Your task to perform on an android device: Search for Mexican restaurants on Maps Image 0: 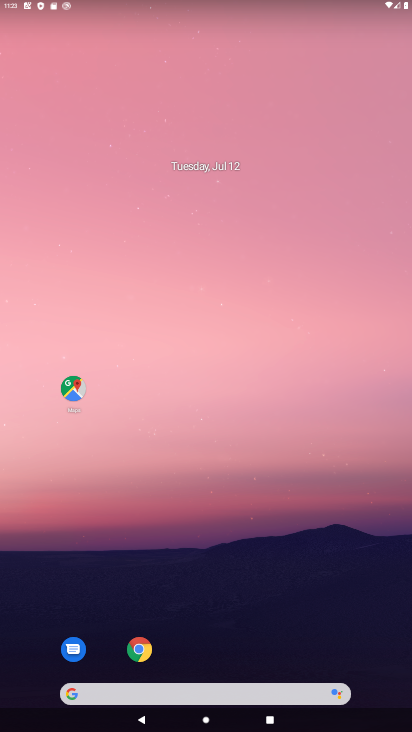
Step 0: press home button
Your task to perform on an android device: Search for Mexican restaurants on Maps Image 1: 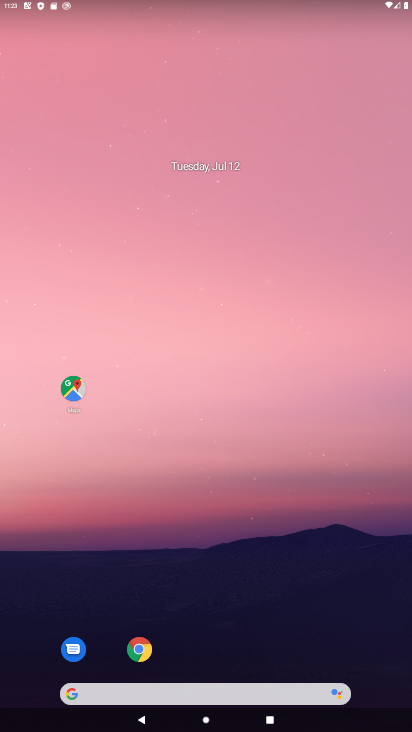
Step 1: click (218, 196)
Your task to perform on an android device: Search for Mexican restaurants on Maps Image 2: 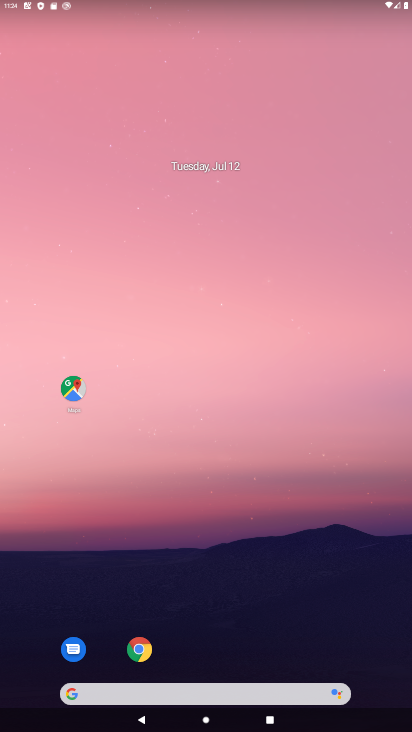
Step 2: drag from (300, 523) to (314, 207)
Your task to perform on an android device: Search for Mexican restaurants on Maps Image 3: 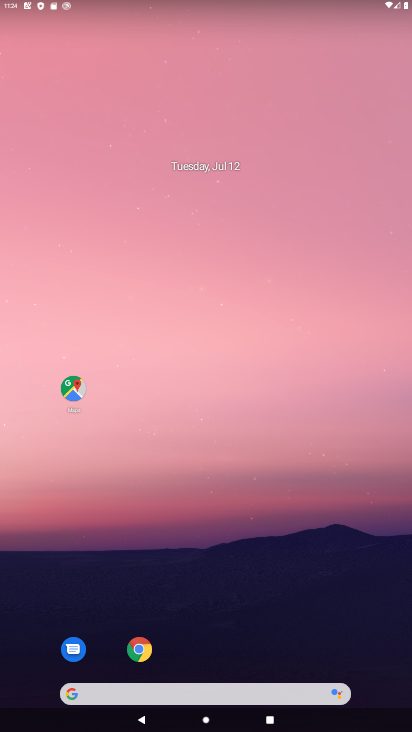
Step 3: drag from (347, 663) to (379, 80)
Your task to perform on an android device: Search for Mexican restaurants on Maps Image 4: 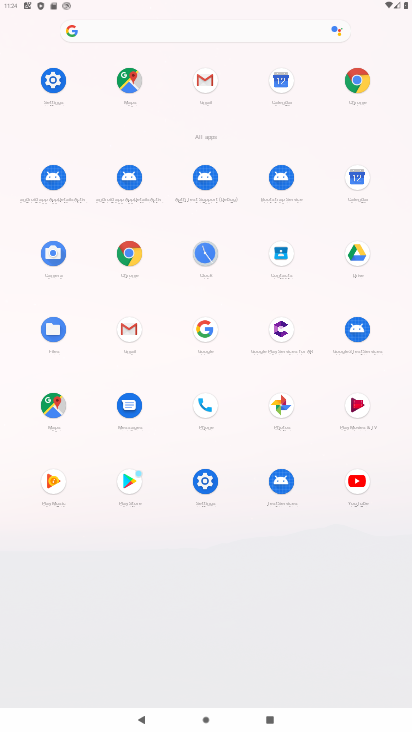
Step 4: click (50, 395)
Your task to perform on an android device: Search for Mexican restaurants on Maps Image 5: 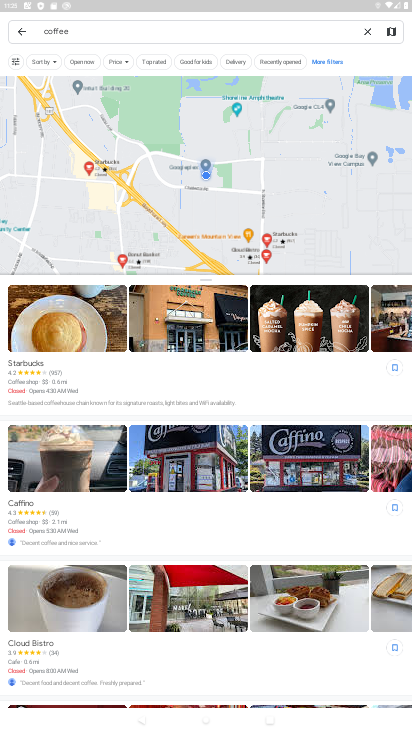
Step 5: click (366, 31)
Your task to perform on an android device: Search for Mexican restaurants on Maps Image 6: 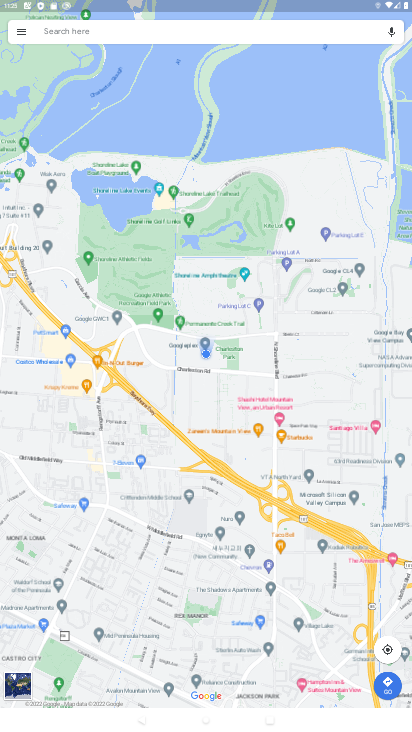
Step 6: type "Mexican restaurants "
Your task to perform on an android device: Search for Mexican restaurants on Maps Image 7: 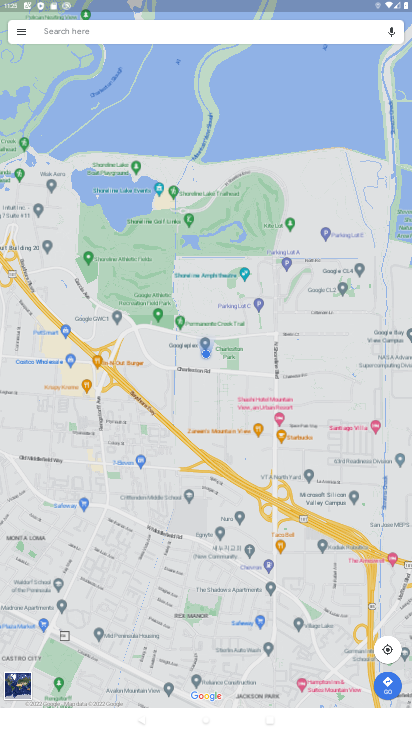
Step 7: click (64, 24)
Your task to perform on an android device: Search for Mexican restaurants on Maps Image 8: 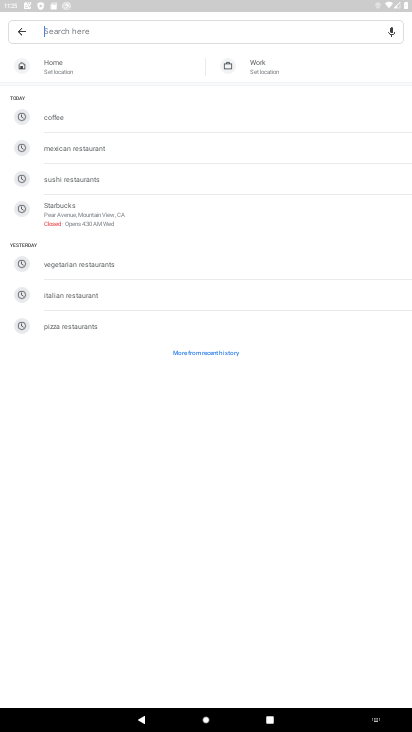
Step 8: click (64, 24)
Your task to perform on an android device: Search for Mexican restaurants on Maps Image 9: 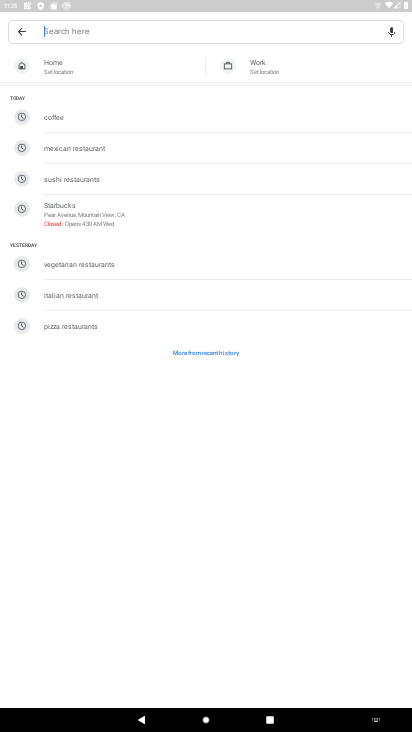
Step 9: type "Mexican restaurants "
Your task to perform on an android device: Search for Mexican restaurants on Maps Image 10: 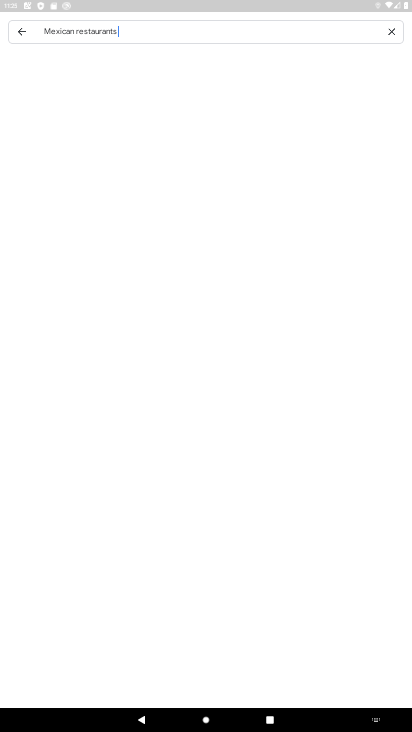
Step 10: type ""
Your task to perform on an android device: Search for Mexican restaurants on Maps Image 11: 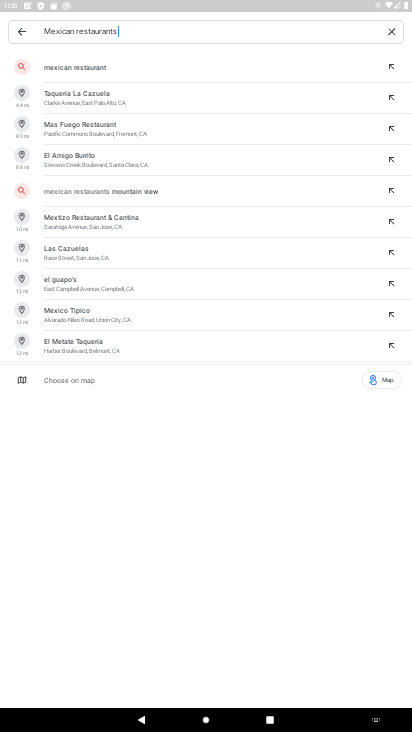
Step 11: click (85, 63)
Your task to perform on an android device: Search for Mexican restaurants on Maps Image 12: 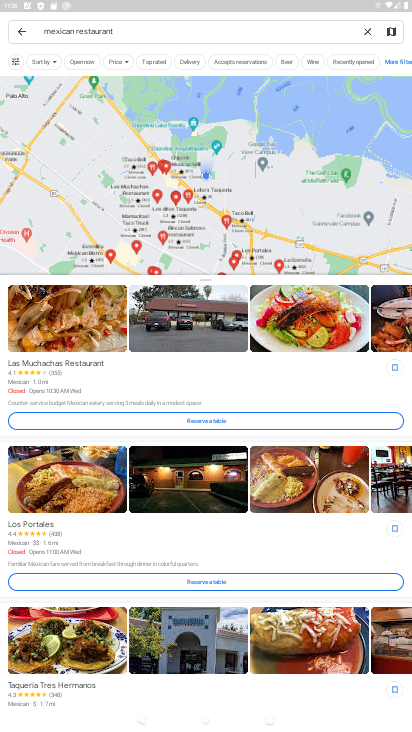
Step 12: task complete